Your task to perform on an android device: turn notification dots on Image 0: 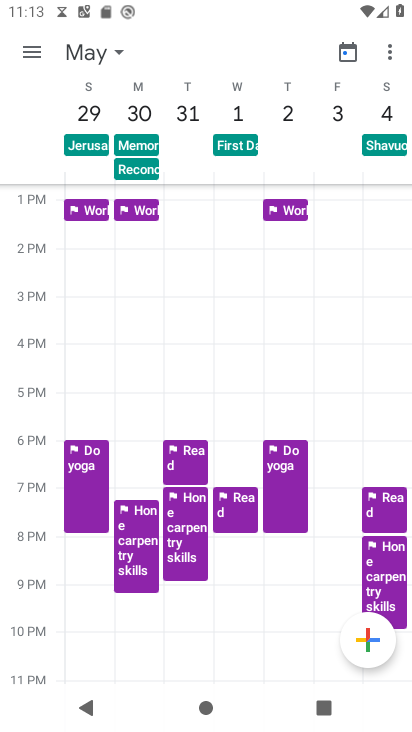
Step 0: press home button
Your task to perform on an android device: turn notification dots on Image 1: 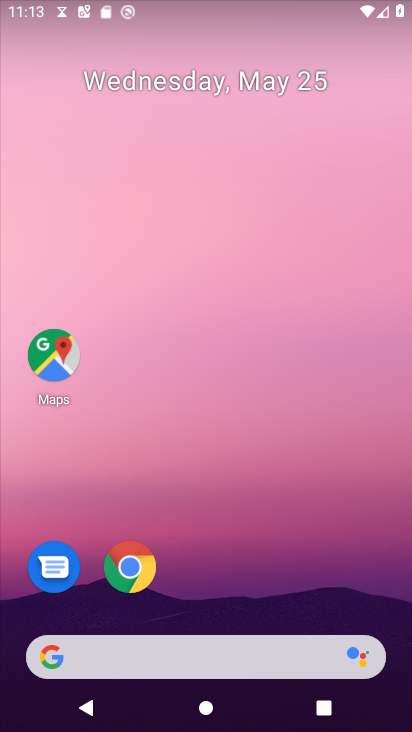
Step 1: drag from (304, 605) to (292, 20)
Your task to perform on an android device: turn notification dots on Image 2: 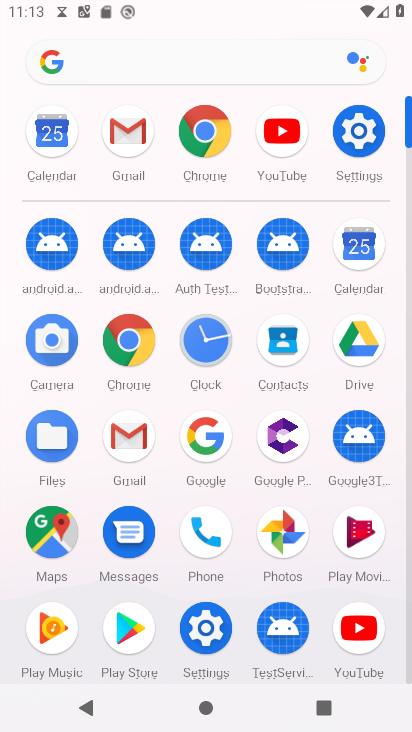
Step 2: click (358, 138)
Your task to perform on an android device: turn notification dots on Image 3: 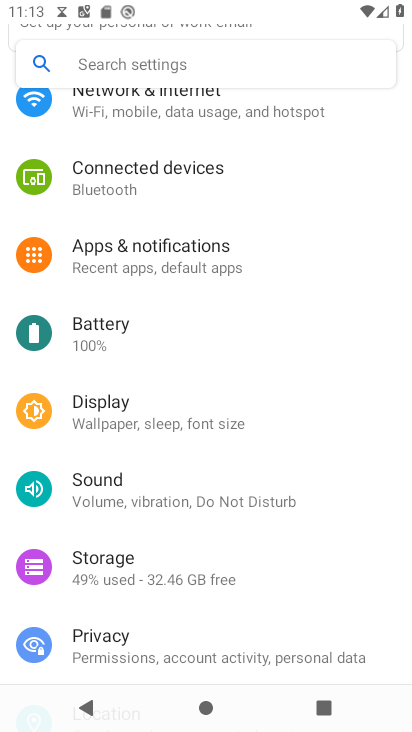
Step 3: click (173, 251)
Your task to perform on an android device: turn notification dots on Image 4: 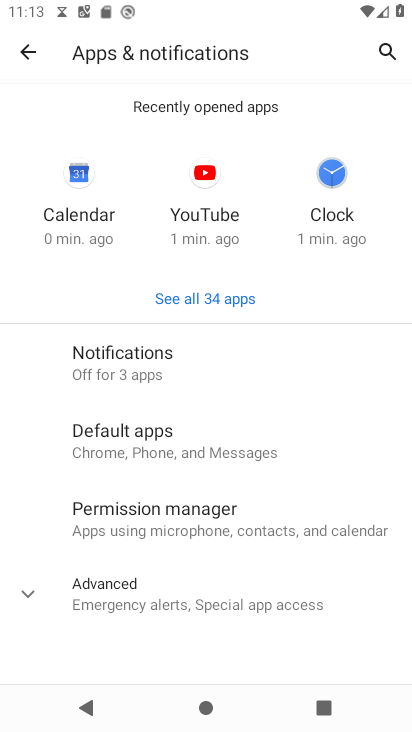
Step 4: click (172, 362)
Your task to perform on an android device: turn notification dots on Image 5: 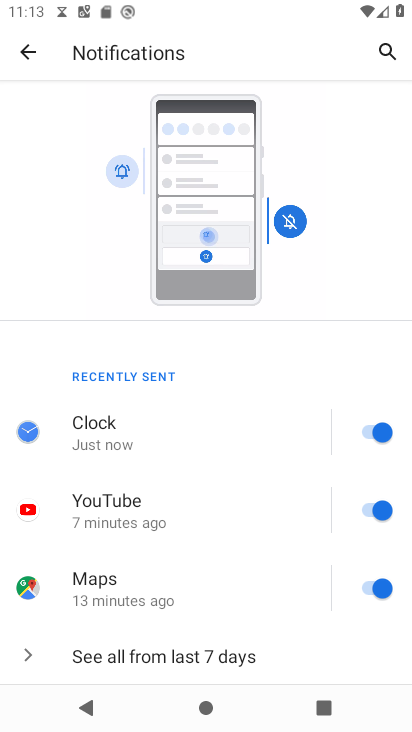
Step 5: drag from (309, 650) to (293, 190)
Your task to perform on an android device: turn notification dots on Image 6: 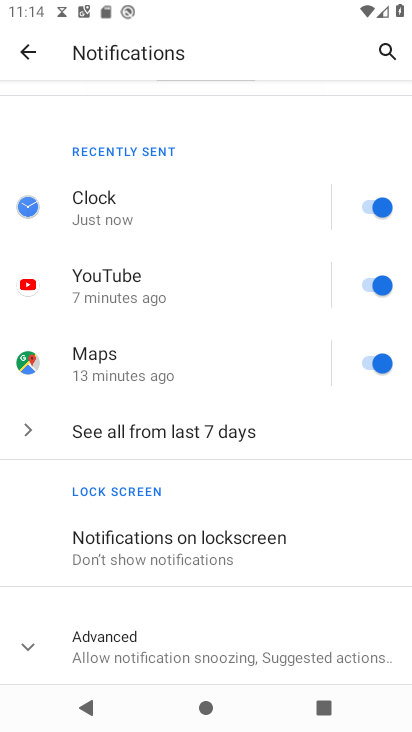
Step 6: click (228, 648)
Your task to perform on an android device: turn notification dots on Image 7: 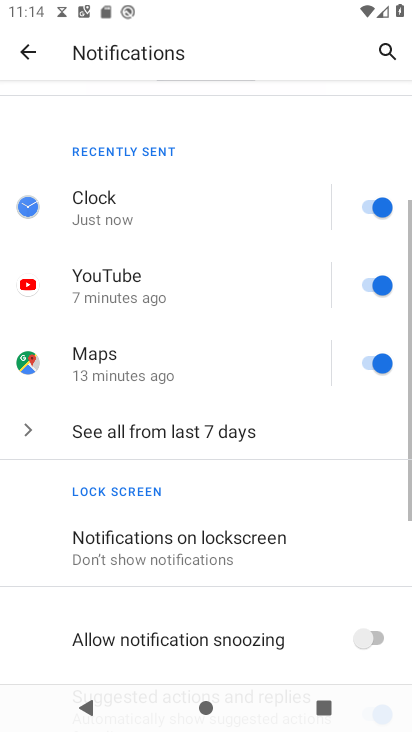
Step 7: task complete